Your task to perform on an android device: set the stopwatch Image 0: 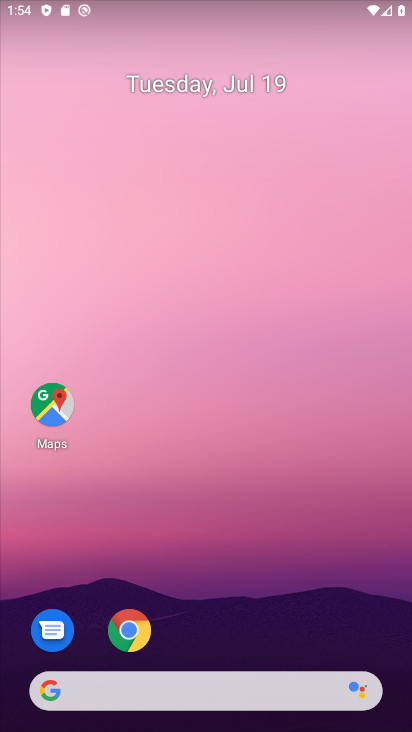
Step 0: drag from (252, 632) to (309, 38)
Your task to perform on an android device: set the stopwatch Image 1: 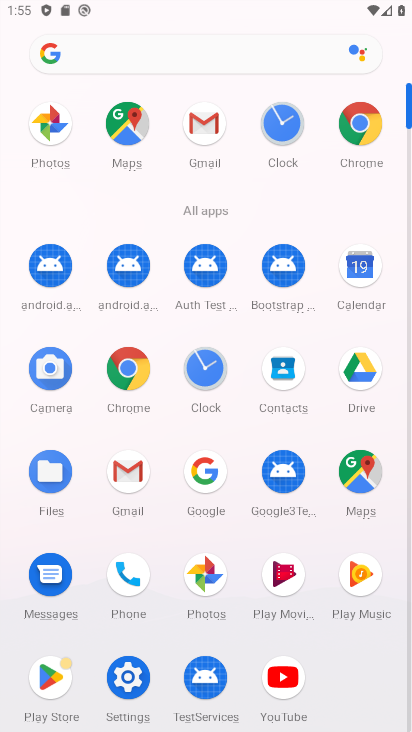
Step 1: click (281, 122)
Your task to perform on an android device: set the stopwatch Image 2: 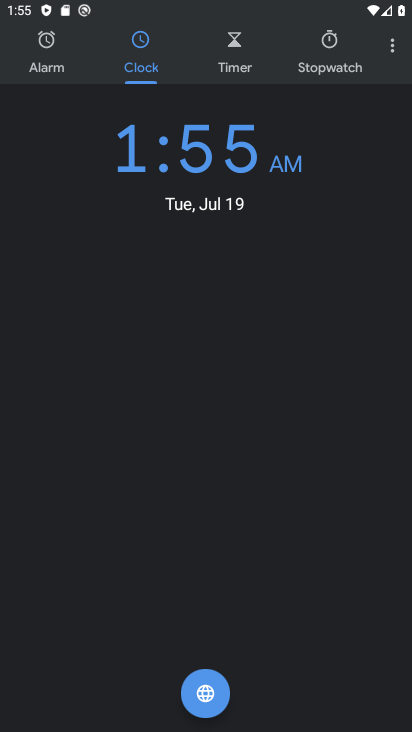
Step 2: click (326, 47)
Your task to perform on an android device: set the stopwatch Image 3: 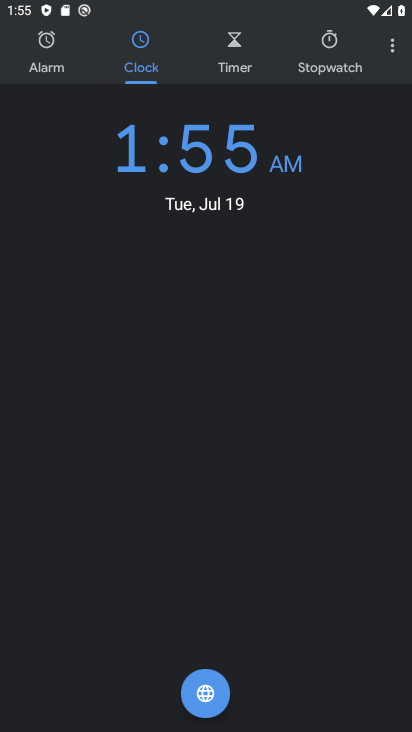
Step 3: click (326, 47)
Your task to perform on an android device: set the stopwatch Image 4: 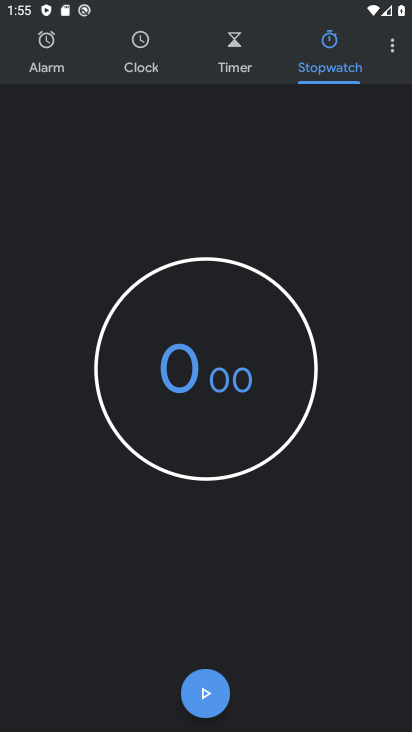
Step 4: task complete